Your task to perform on an android device: Open Google Chrome and click the shortcut for Amazon.com Image 0: 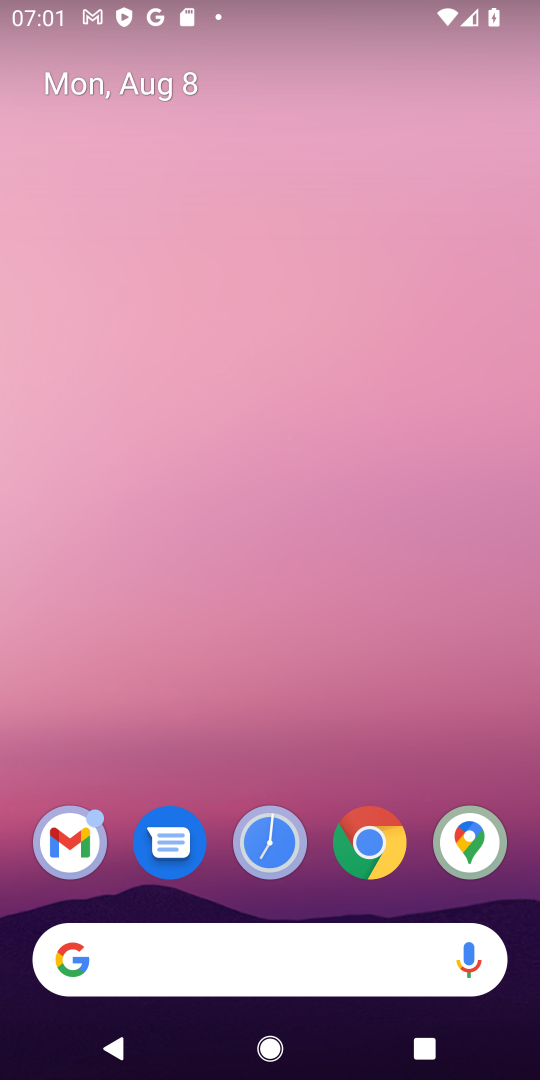
Step 0: drag from (314, 820) to (200, 76)
Your task to perform on an android device: Open Google Chrome and click the shortcut for Amazon.com Image 1: 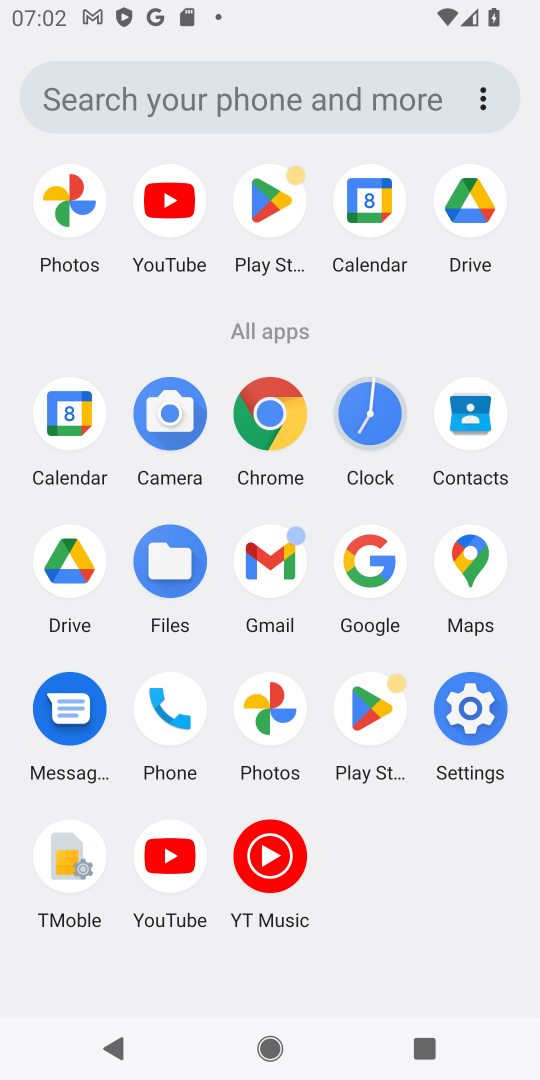
Step 1: click (271, 406)
Your task to perform on an android device: Open Google Chrome and click the shortcut for Amazon.com Image 2: 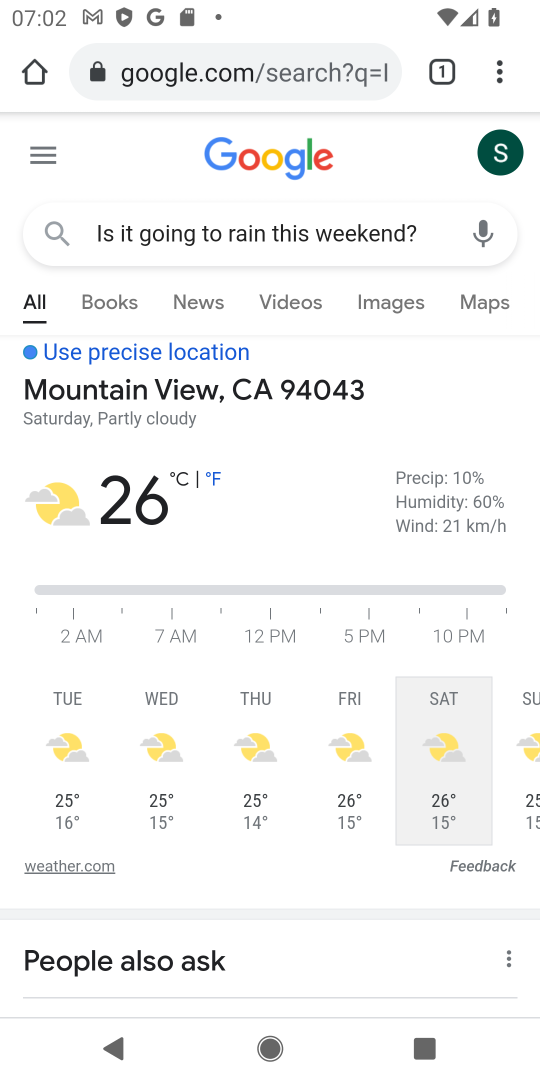
Step 2: click (271, 71)
Your task to perform on an android device: Open Google Chrome and click the shortcut for Amazon.com Image 3: 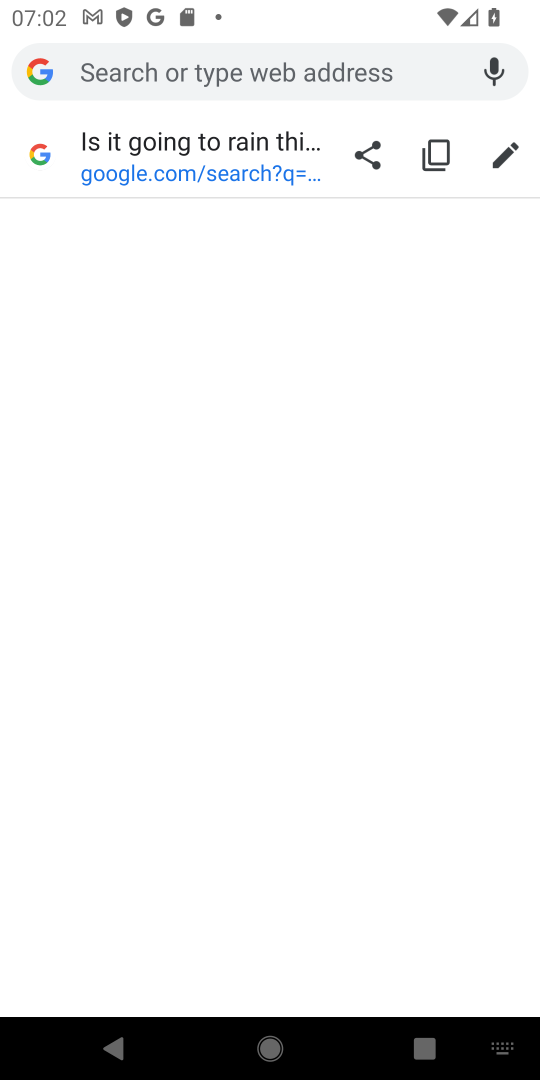
Step 3: press back button
Your task to perform on an android device: Open Google Chrome and click the shortcut for Amazon.com Image 4: 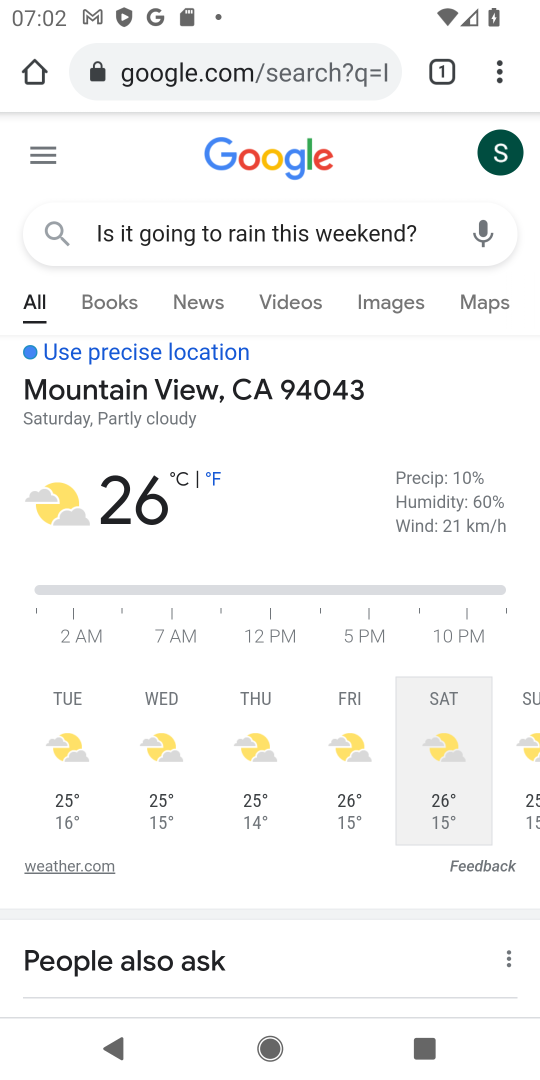
Step 4: drag from (491, 59) to (335, 142)
Your task to perform on an android device: Open Google Chrome and click the shortcut for Amazon.com Image 5: 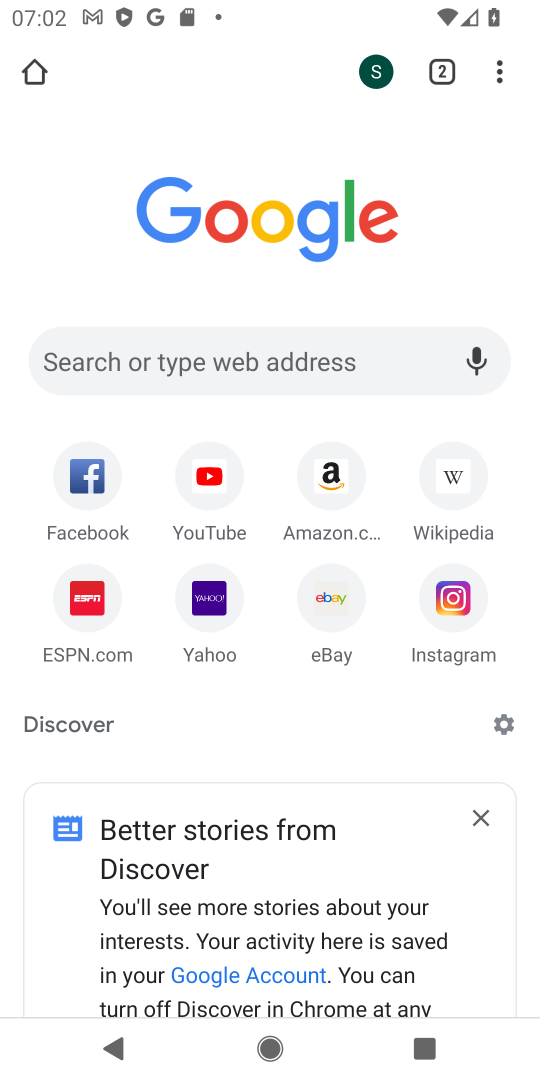
Step 5: click (325, 479)
Your task to perform on an android device: Open Google Chrome and click the shortcut for Amazon.com Image 6: 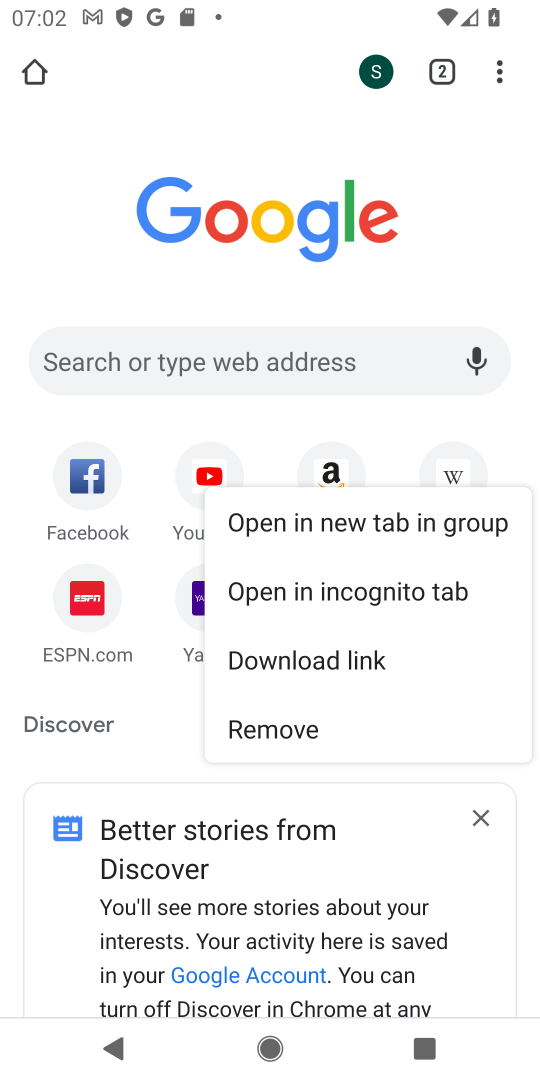
Step 6: click (423, 210)
Your task to perform on an android device: Open Google Chrome and click the shortcut for Amazon.com Image 7: 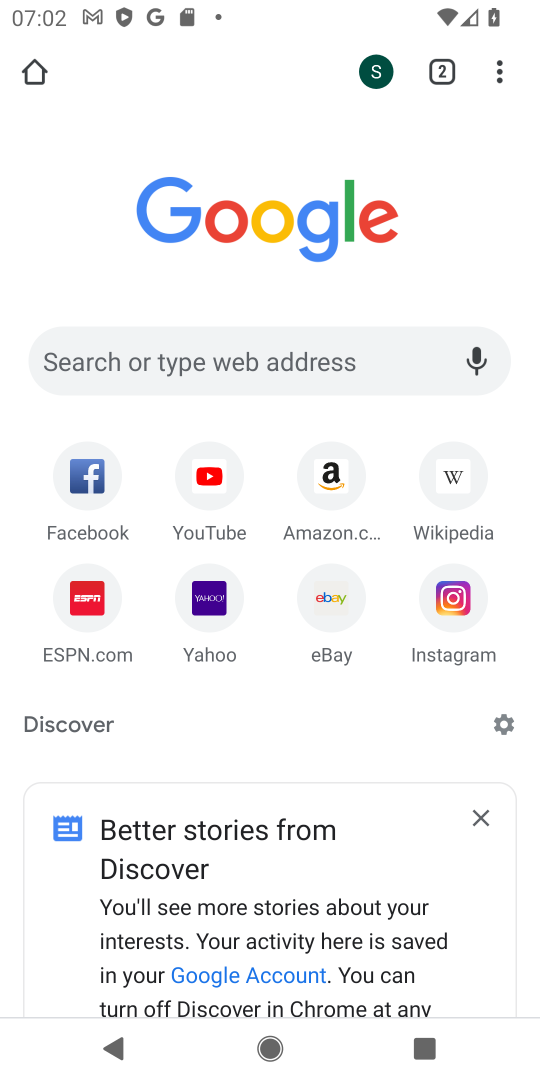
Step 7: click (338, 466)
Your task to perform on an android device: Open Google Chrome and click the shortcut for Amazon.com Image 8: 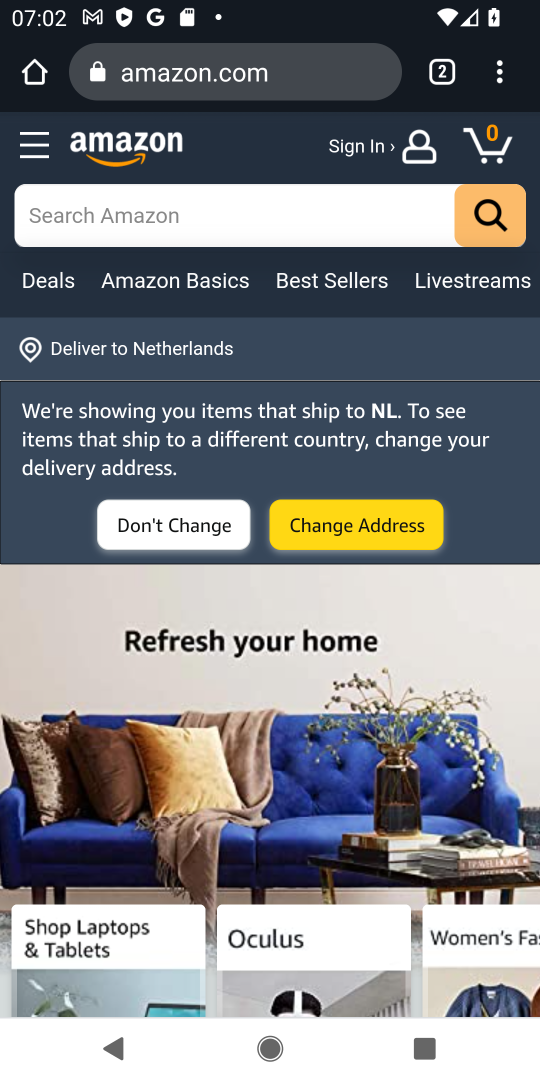
Step 8: task complete